Your task to perform on an android device: Open Android settings Image 0: 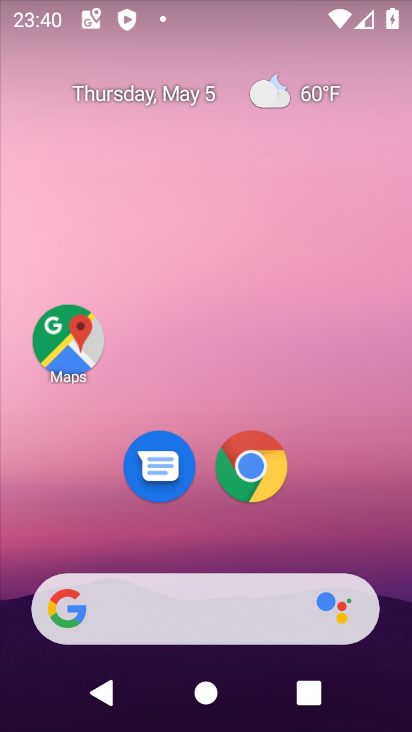
Step 0: drag from (213, 552) to (347, 99)
Your task to perform on an android device: Open Android settings Image 1: 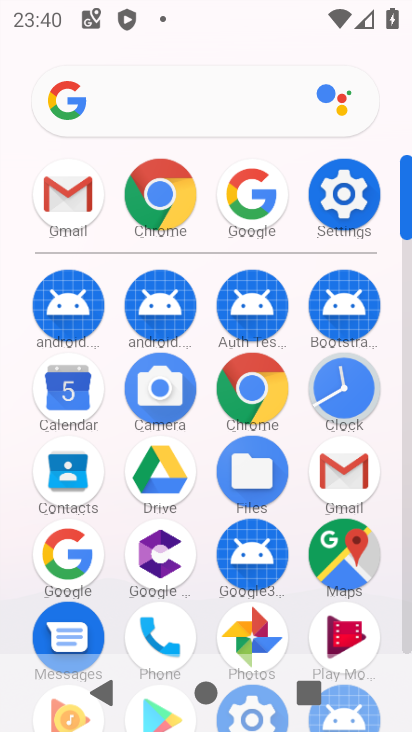
Step 1: click (344, 201)
Your task to perform on an android device: Open Android settings Image 2: 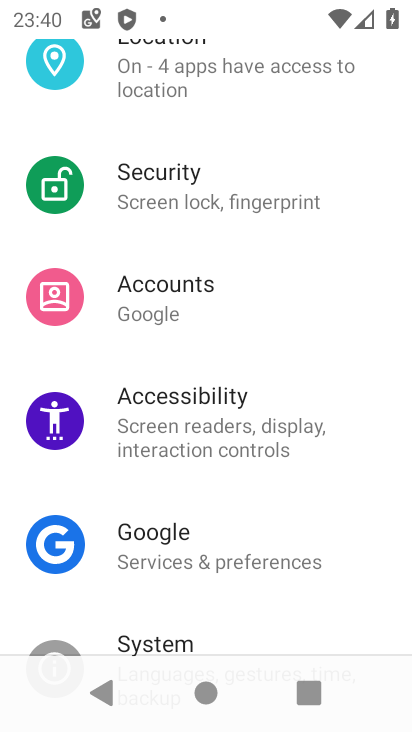
Step 2: task complete